Your task to perform on an android device: allow cookies in the chrome app Image 0: 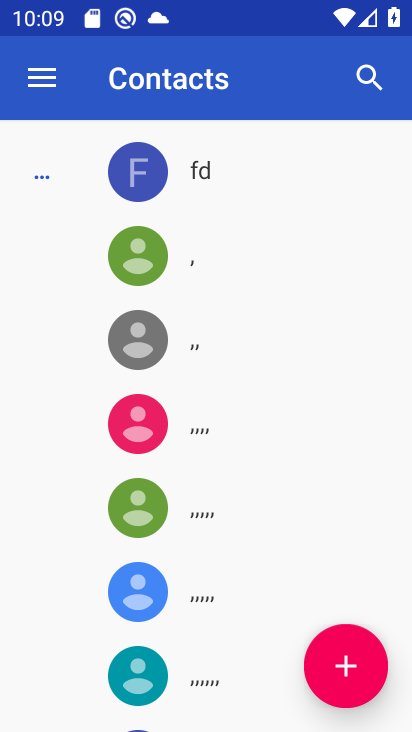
Step 0: press home button
Your task to perform on an android device: allow cookies in the chrome app Image 1: 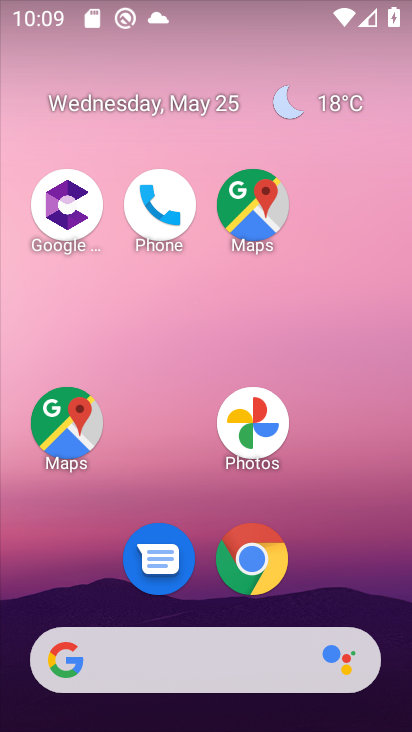
Step 1: click (255, 567)
Your task to perform on an android device: allow cookies in the chrome app Image 2: 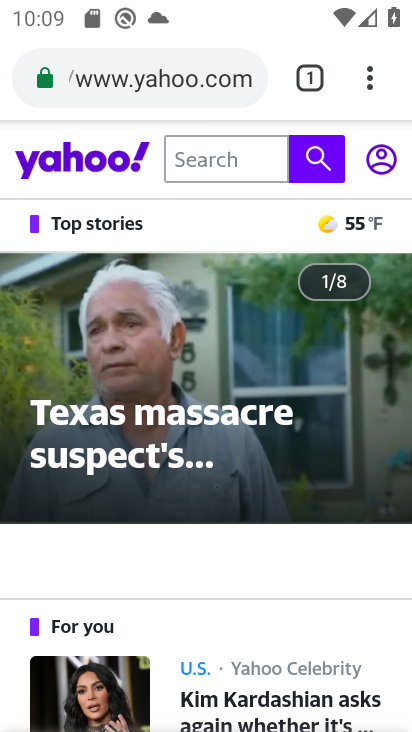
Step 2: click (380, 81)
Your task to perform on an android device: allow cookies in the chrome app Image 3: 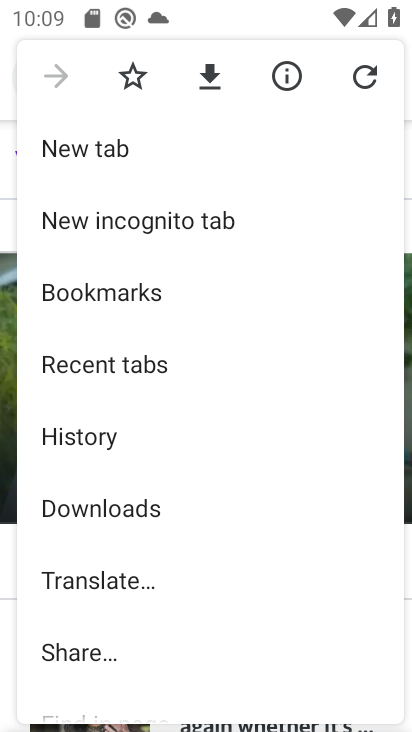
Step 3: drag from (185, 628) to (194, 348)
Your task to perform on an android device: allow cookies in the chrome app Image 4: 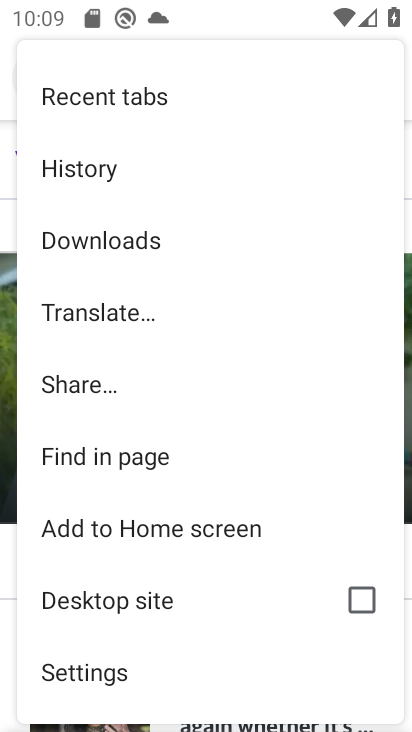
Step 4: click (117, 665)
Your task to perform on an android device: allow cookies in the chrome app Image 5: 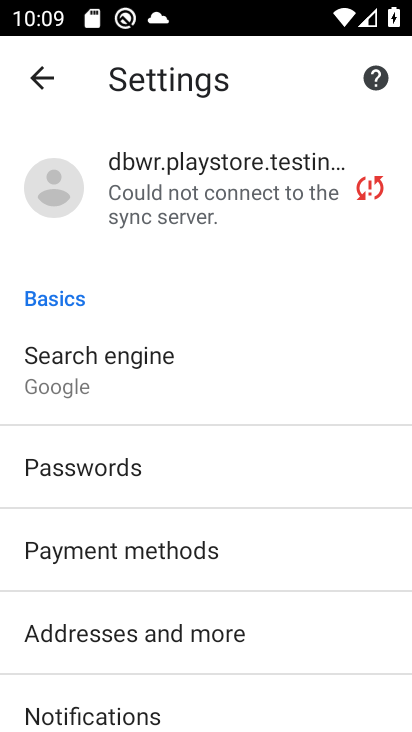
Step 5: drag from (267, 662) to (242, 300)
Your task to perform on an android device: allow cookies in the chrome app Image 6: 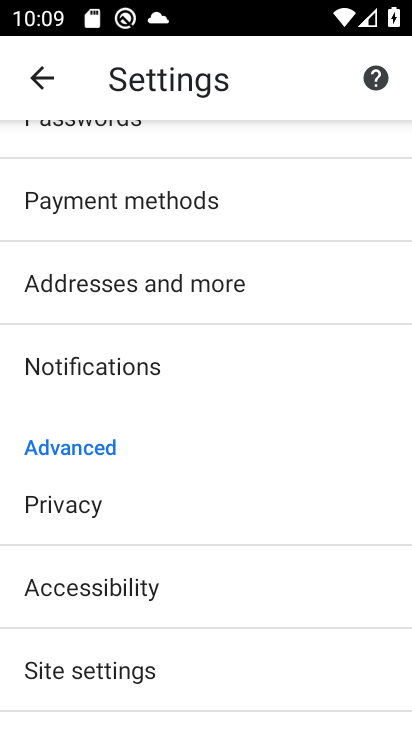
Step 6: click (132, 659)
Your task to perform on an android device: allow cookies in the chrome app Image 7: 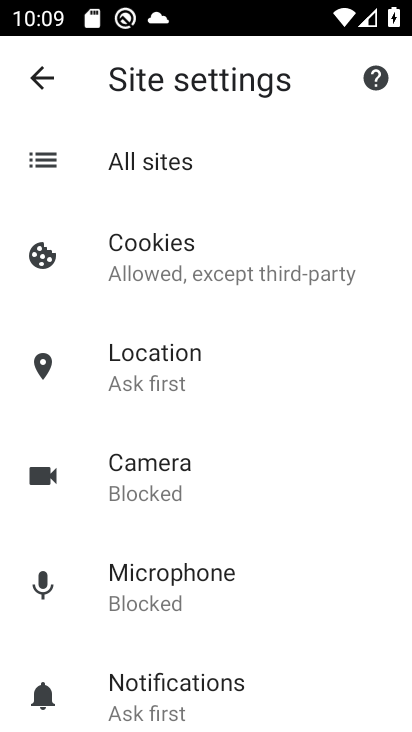
Step 7: click (233, 265)
Your task to perform on an android device: allow cookies in the chrome app Image 8: 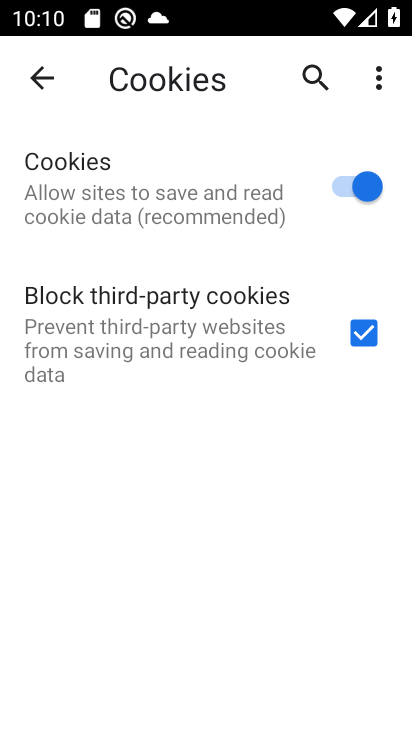
Step 8: click (375, 338)
Your task to perform on an android device: allow cookies in the chrome app Image 9: 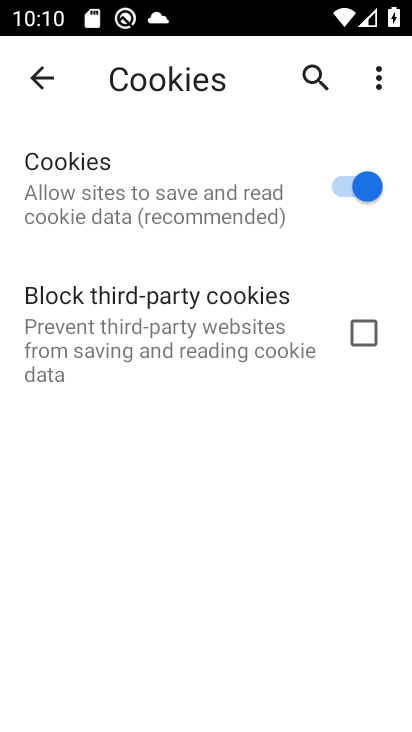
Step 9: task complete